Your task to perform on an android device: Turn on the flashlight Image 0: 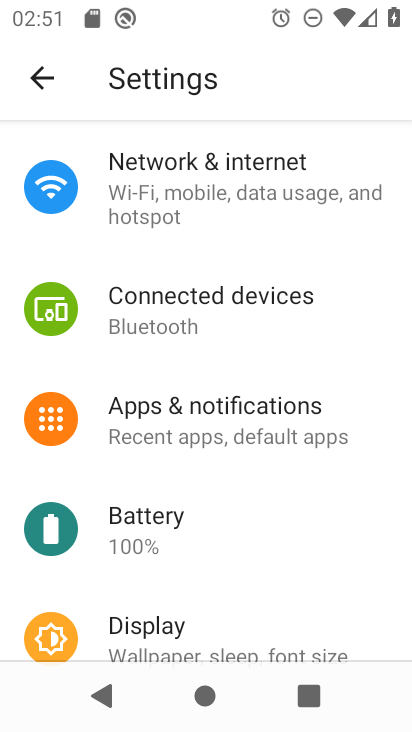
Step 0: drag from (225, 1) to (253, 448)
Your task to perform on an android device: Turn on the flashlight Image 1: 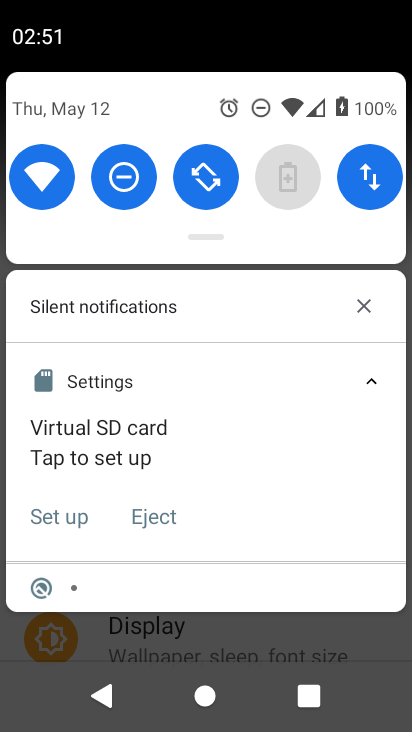
Step 1: task complete